Your task to perform on an android device: Open eBay Image 0: 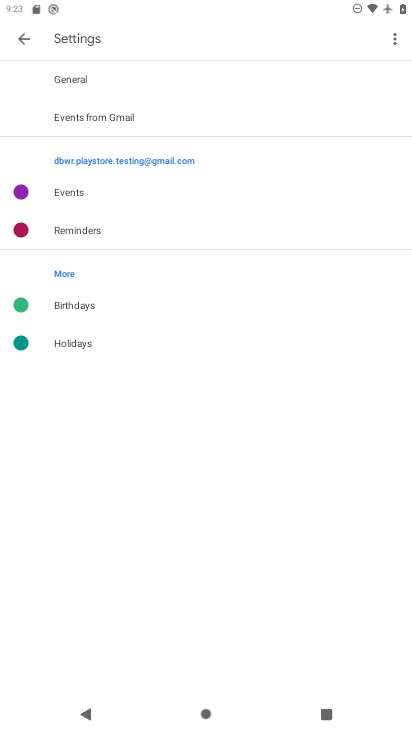
Step 0: press home button
Your task to perform on an android device: Open eBay Image 1: 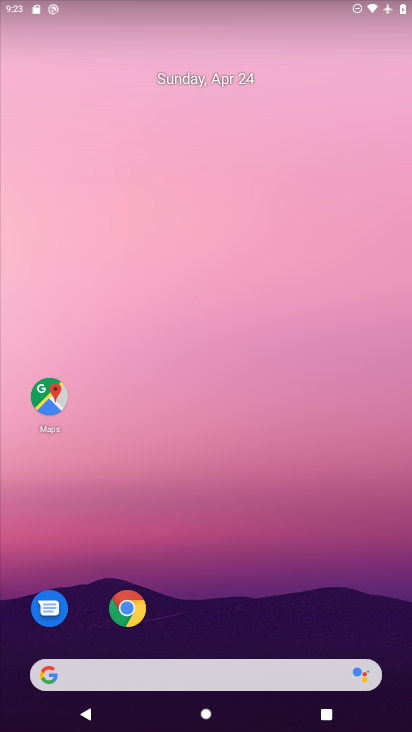
Step 1: click (217, 678)
Your task to perform on an android device: Open eBay Image 2: 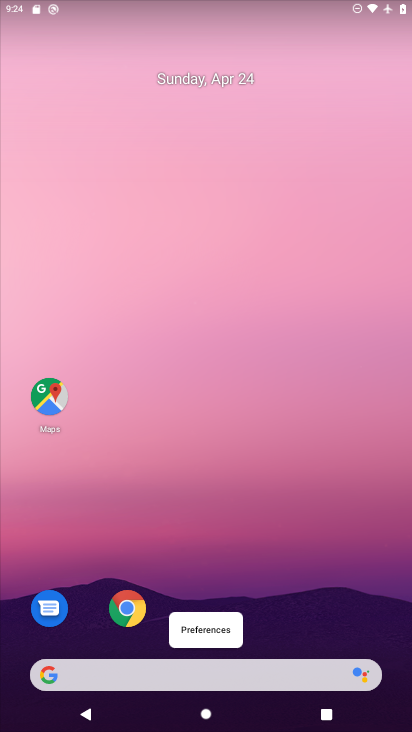
Step 2: click (163, 670)
Your task to perform on an android device: Open eBay Image 3: 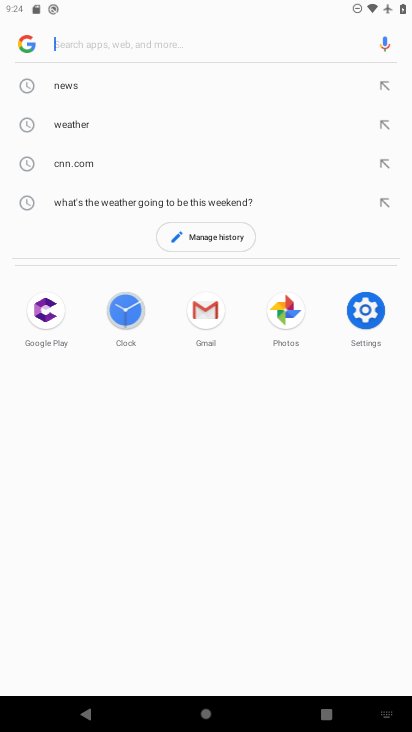
Step 3: type "eBay"
Your task to perform on an android device: Open eBay Image 4: 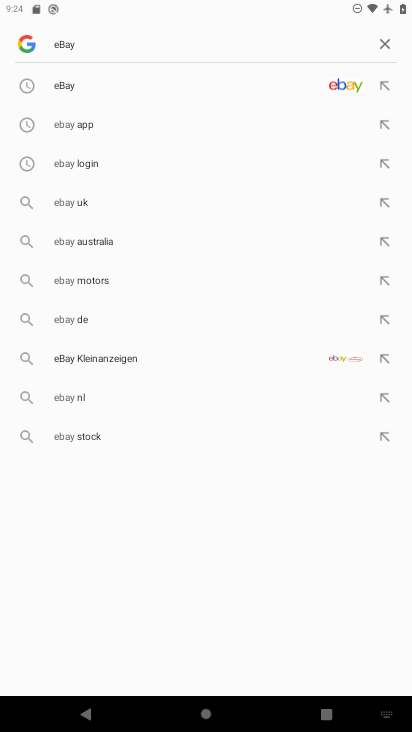
Step 4: click (77, 87)
Your task to perform on an android device: Open eBay Image 5: 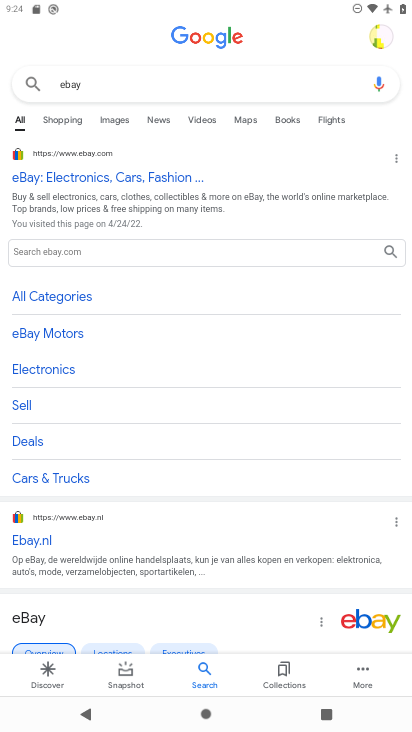
Step 5: click (102, 173)
Your task to perform on an android device: Open eBay Image 6: 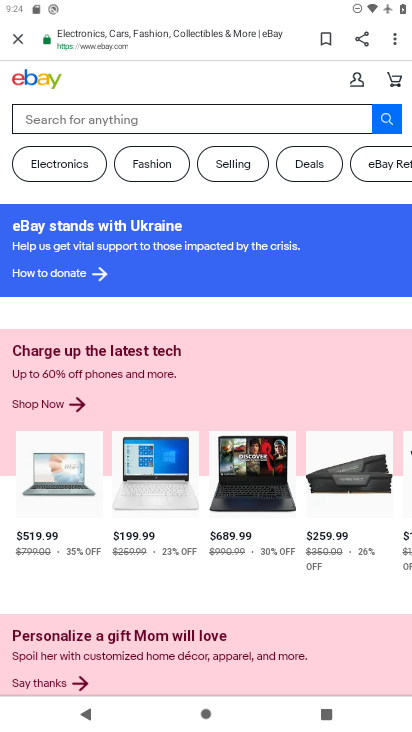
Step 6: task complete